Your task to perform on an android device: choose inbox layout in the gmail app Image 0: 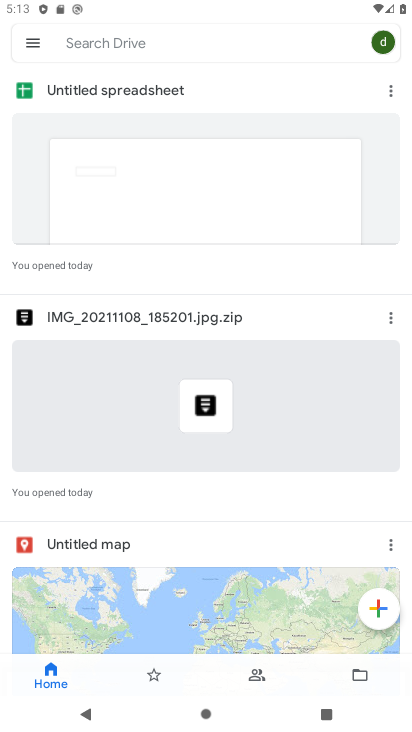
Step 0: press home button
Your task to perform on an android device: choose inbox layout in the gmail app Image 1: 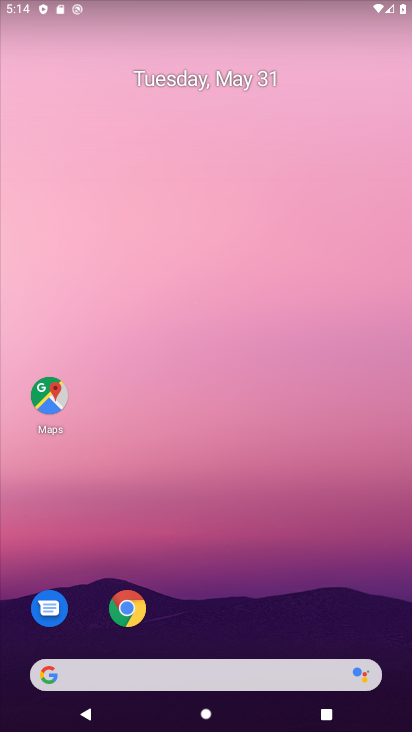
Step 1: drag from (229, 604) to (180, 107)
Your task to perform on an android device: choose inbox layout in the gmail app Image 2: 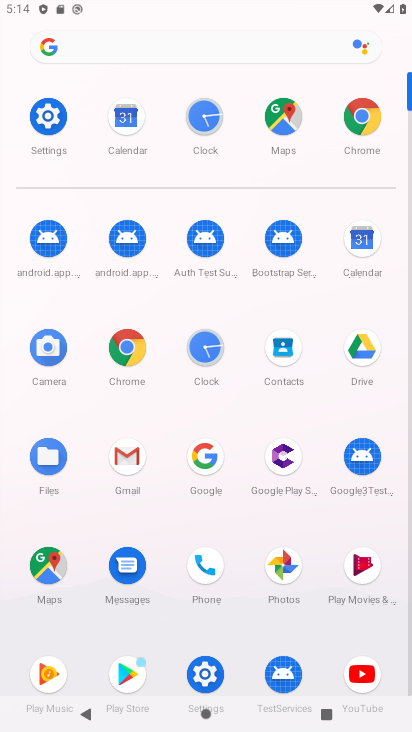
Step 2: click (126, 454)
Your task to perform on an android device: choose inbox layout in the gmail app Image 3: 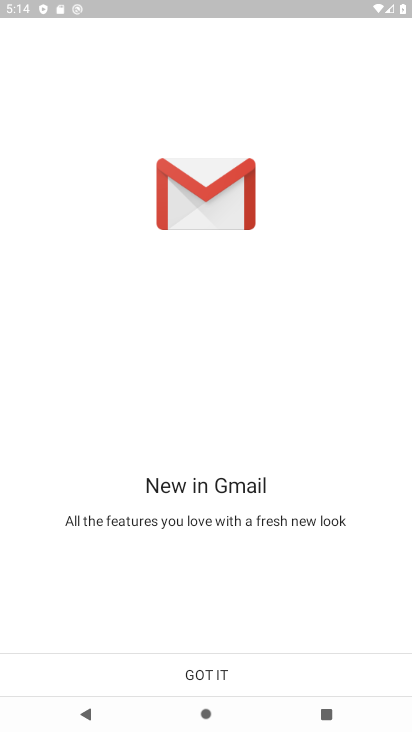
Step 3: click (207, 666)
Your task to perform on an android device: choose inbox layout in the gmail app Image 4: 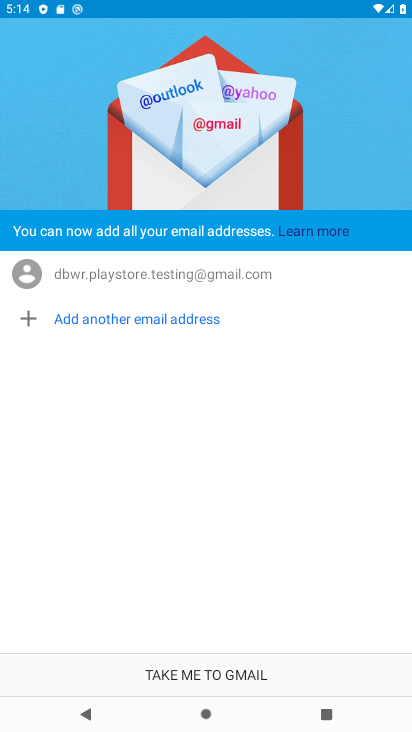
Step 4: click (202, 670)
Your task to perform on an android device: choose inbox layout in the gmail app Image 5: 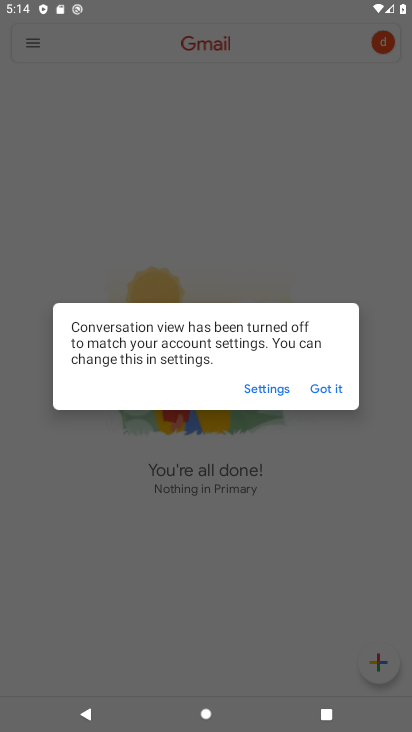
Step 5: click (330, 391)
Your task to perform on an android device: choose inbox layout in the gmail app Image 6: 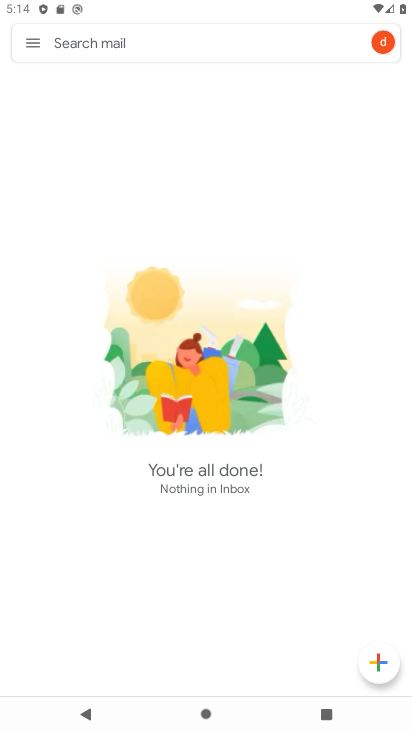
Step 6: click (35, 42)
Your task to perform on an android device: choose inbox layout in the gmail app Image 7: 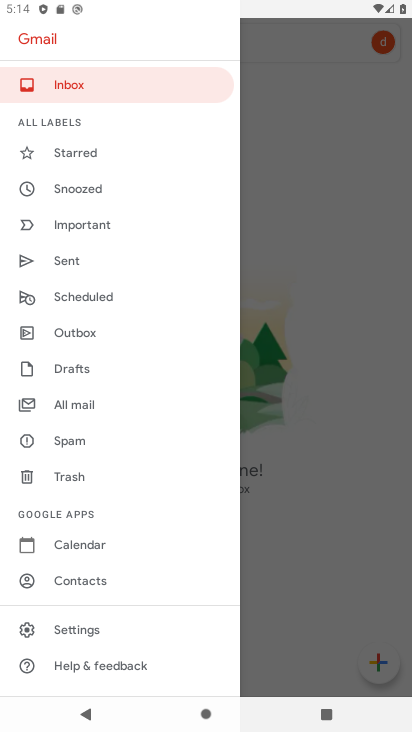
Step 7: click (80, 625)
Your task to perform on an android device: choose inbox layout in the gmail app Image 8: 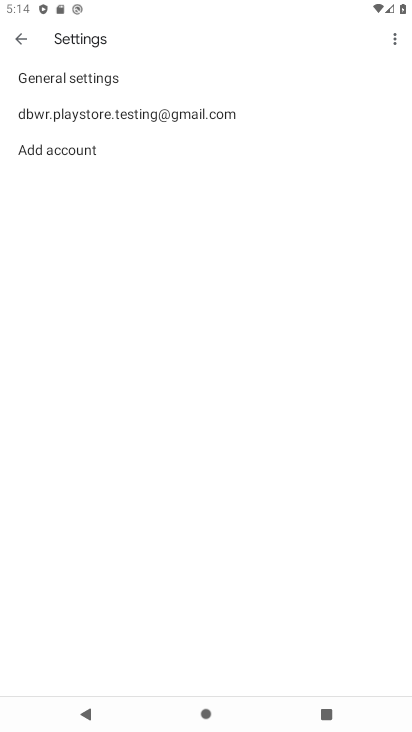
Step 8: click (94, 126)
Your task to perform on an android device: choose inbox layout in the gmail app Image 9: 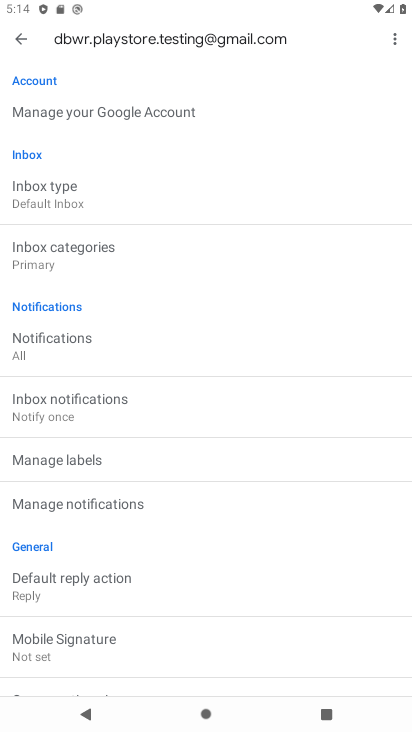
Step 9: click (54, 201)
Your task to perform on an android device: choose inbox layout in the gmail app Image 10: 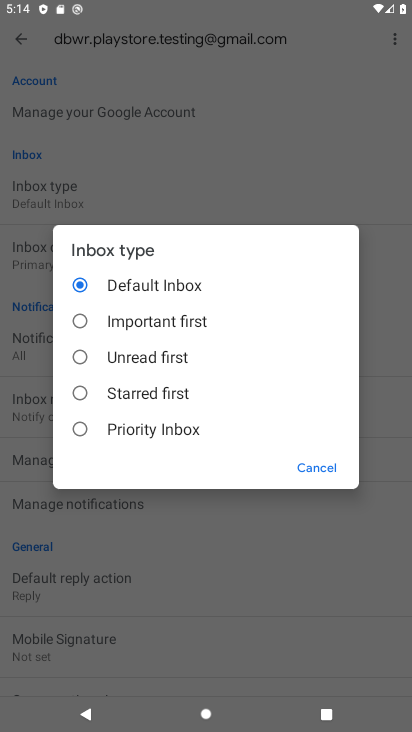
Step 10: click (80, 320)
Your task to perform on an android device: choose inbox layout in the gmail app Image 11: 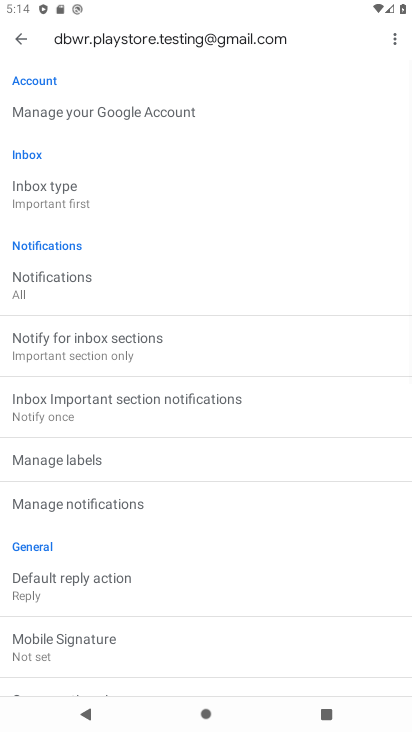
Step 11: task complete